Your task to perform on an android device: Open sound settings Image 0: 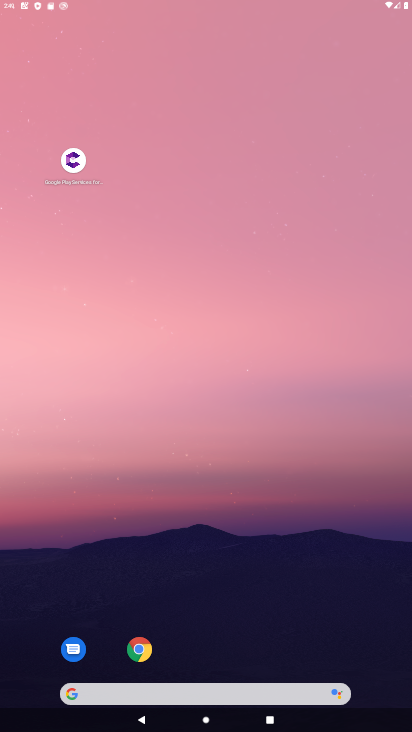
Step 0: drag from (225, 672) to (208, 147)
Your task to perform on an android device: Open sound settings Image 1: 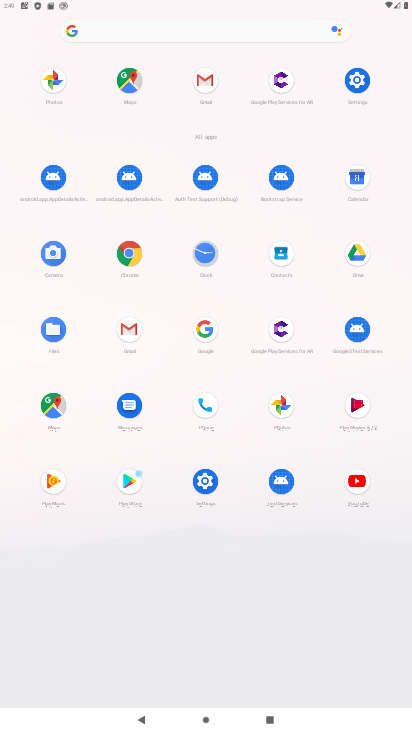
Step 1: click (356, 68)
Your task to perform on an android device: Open sound settings Image 2: 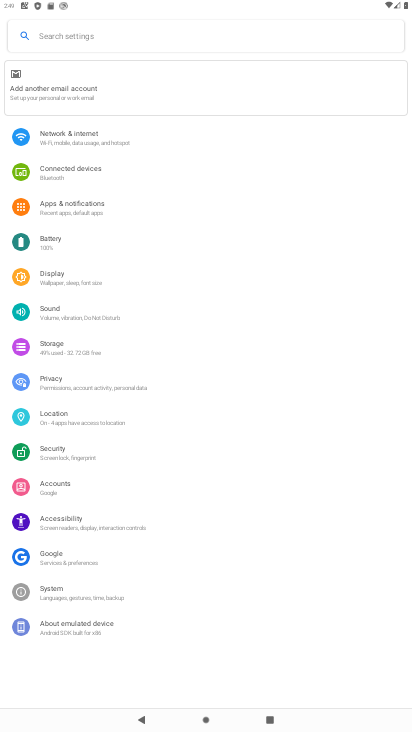
Step 2: click (64, 310)
Your task to perform on an android device: Open sound settings Image 3: 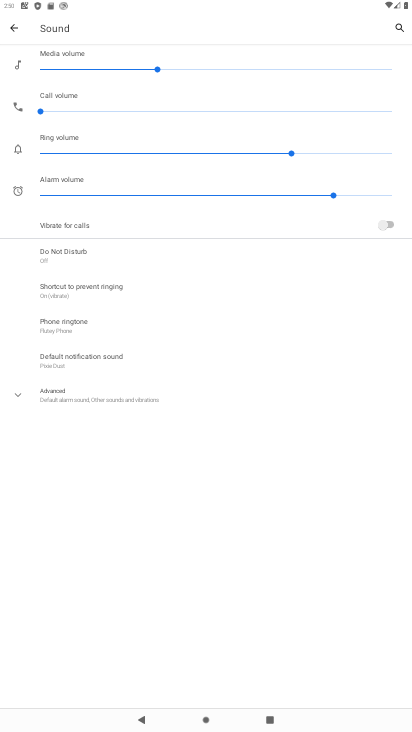
Step 3: click (65, 388)
Your task to perform on an android device: Open sound settings Image 4: 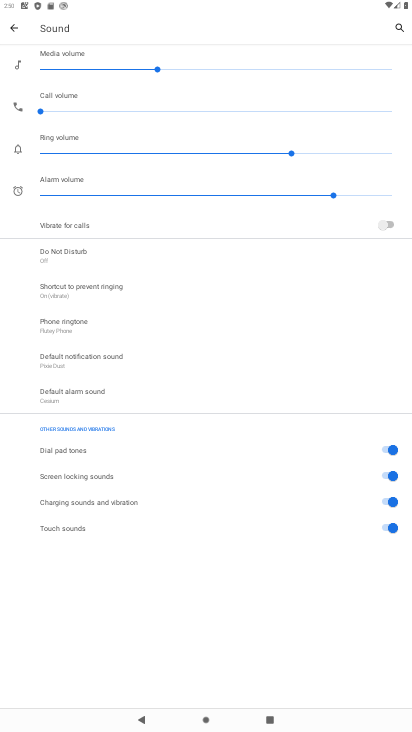
Step 4: task complete